Your task to perform on an android device: Turn off the flashlight Image 0: 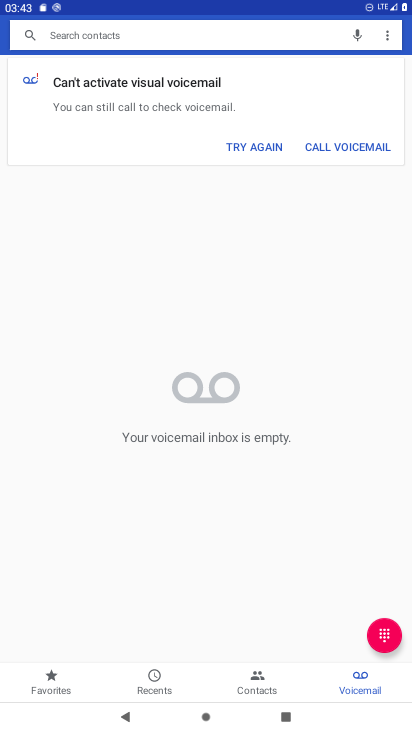
Step 0: press home button
Your task to perform on an android device: Turn off the flashlight Image 1: 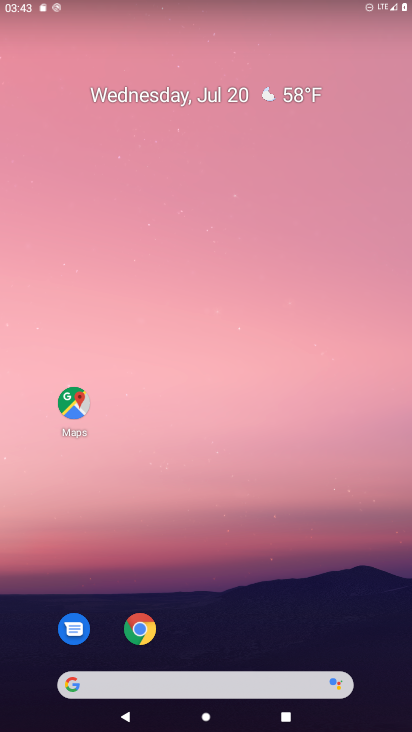
Step 1: task complete